Your task to perform on an android device: turn notification dots on Image 0: 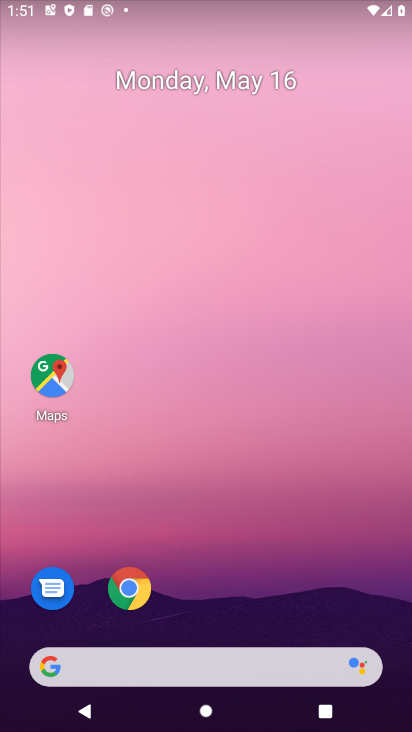
Step 0: drag from (284, 481) to (228, 105)
Your task to perform on an android device: turn notification dots on Image 1: 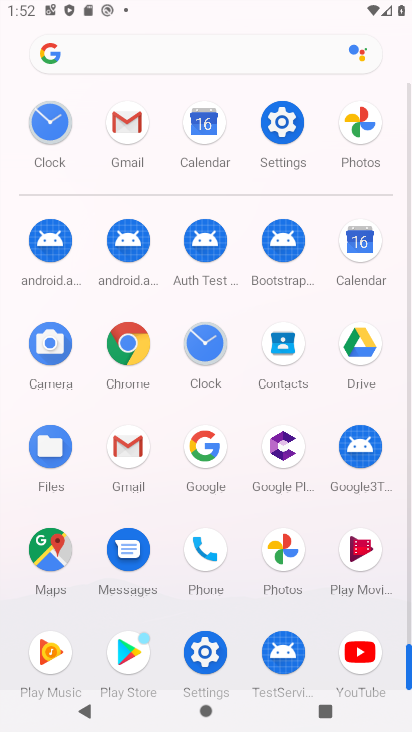
Step 1: click (204, 653)
Your task to perform on an android device: turn notification dots on Image 2: 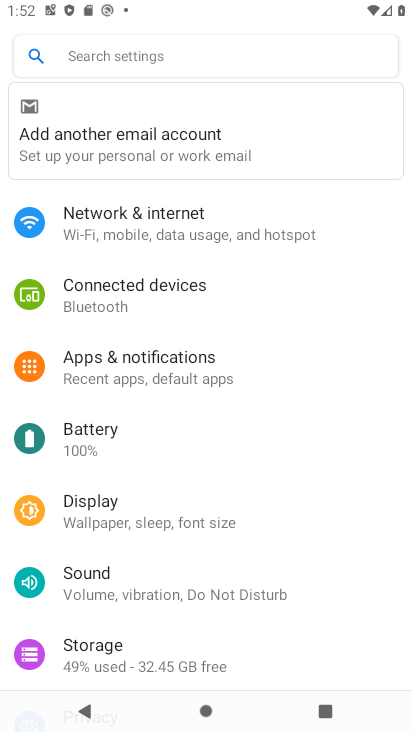
Step 2: click (148, 365)
Your task to perform on an android device: turn notification dots on Image 3: 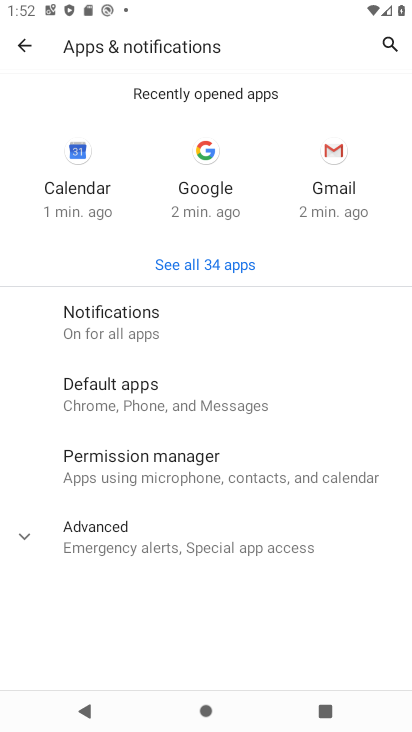
Step 3: click (123, 321)
Your task to perform on an android device: turn notification dots on Image 4: 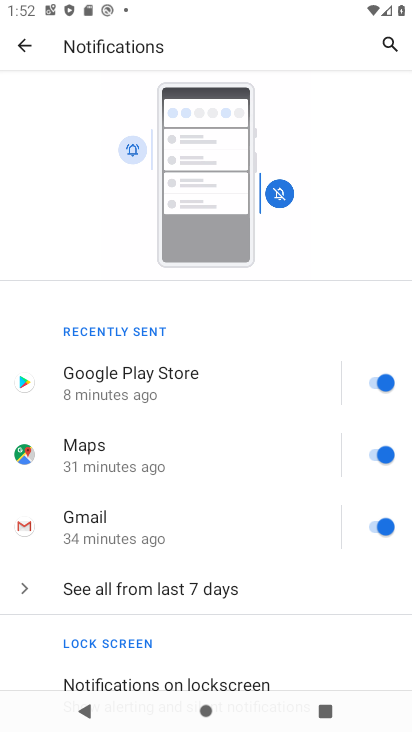
Step 4: drag from (151, 623) to (217, 477)
Your task to perform on an android device: turn notification dots on Image 5: 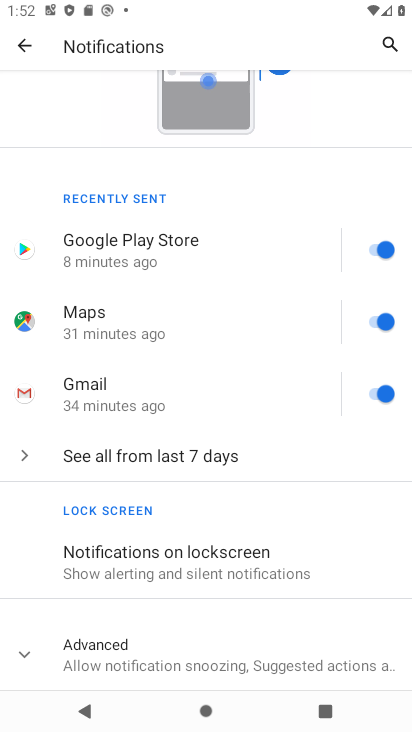
Step 5: drag from (165, 599) to (229, 488)
Your task to perform on an android device: turn notification dots on Image 6: 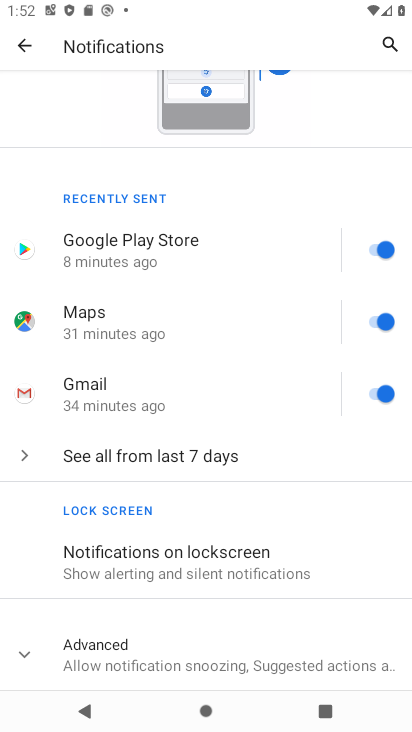
Step 6: click (190, 670)
Your task to perform on an android device: turn notification dots on Image 7: 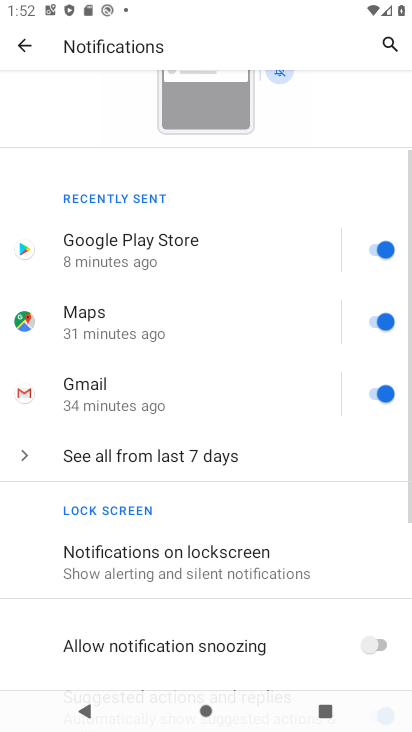
Step 7: task complete